Your task to perform on an android device: turn off data saver in the chrome app Image 0: 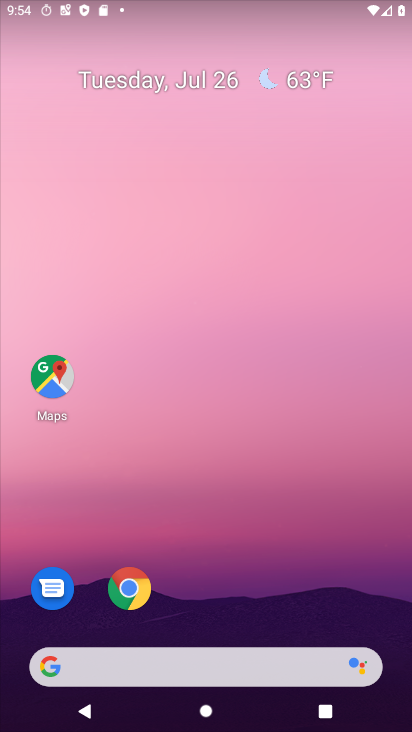
Step 0: click (142, 591)
Your task to perform on an android device: turn off data saver in the chrome app Image 1: 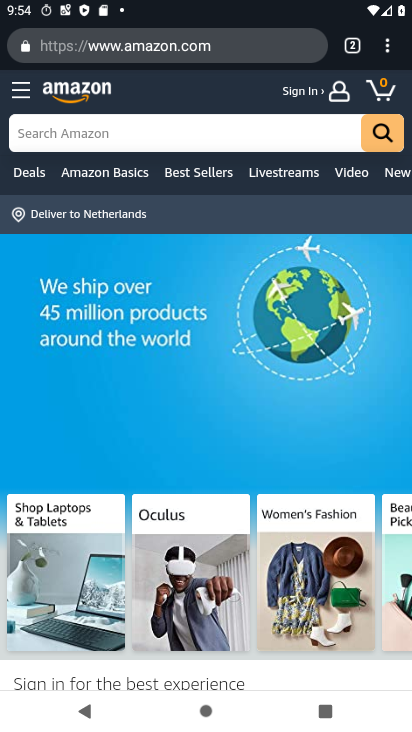
Step 1: click (393, 52)
Your task to perform on an android device: turn off data saver in the chrome app Image 2: 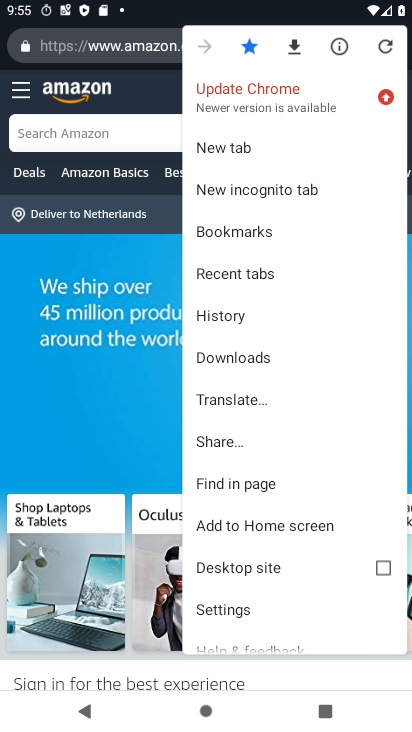
Step 2: click (259, 611)
Your task to perform on an android device: turn off data saver in the chrome app Image 3: 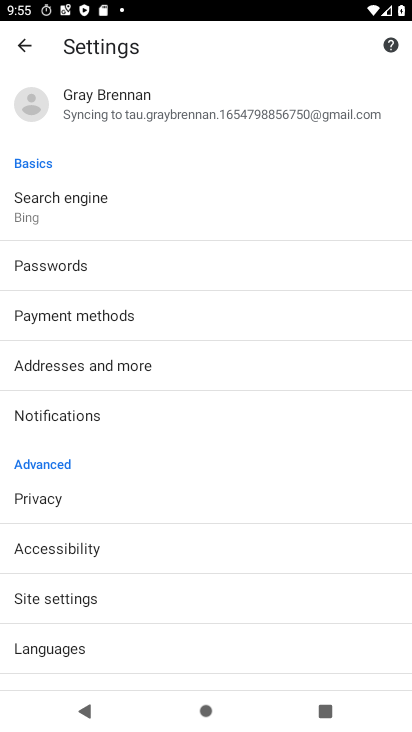
Step 3: drag from (114, 642) to (107, 417)
Your task to perform on an android device: turn off data saver in the chrome app Image 4: 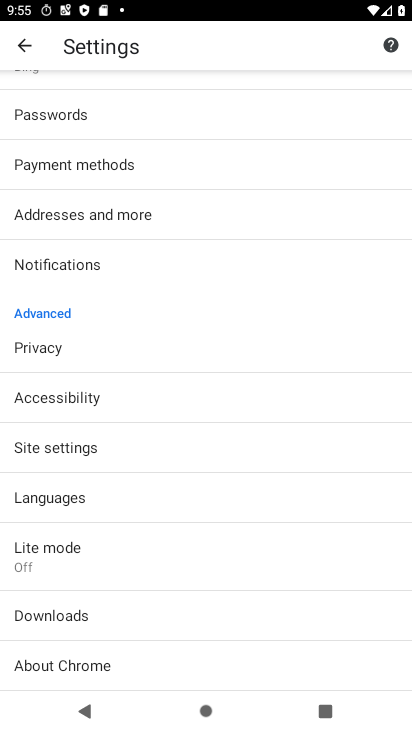
Step 4: click (100, 543)
Your task to perform on an android device: turn off data saver in the chrome app Image 5: 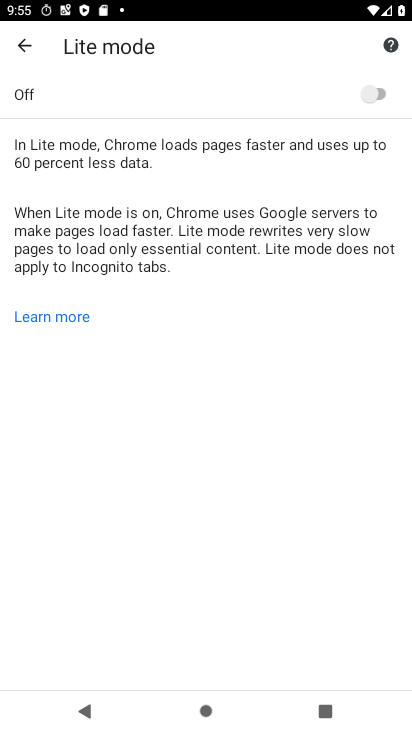
Step 5: task complete